Your task to perform on an android device: Open Google Chrome and click the shortcut for Amazon.com Image 0: 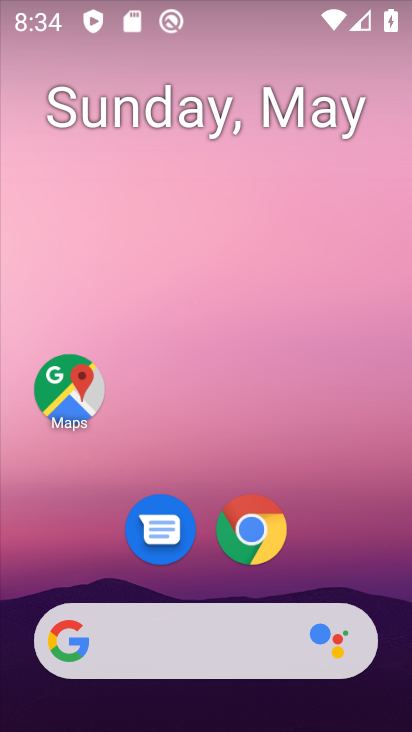
Step 0: click (265, 532)
Your task to perform on an android device: Open Google Chrome and click the shortcut for Amazon.com Image 1: 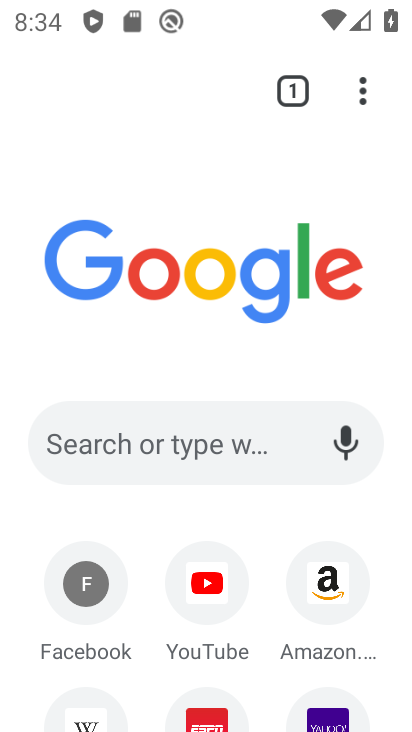
Step 1: click (337, 579)
Your task to perform on an android device: Open Google Chrome and click the shortcut for Amazon.com Image 2: 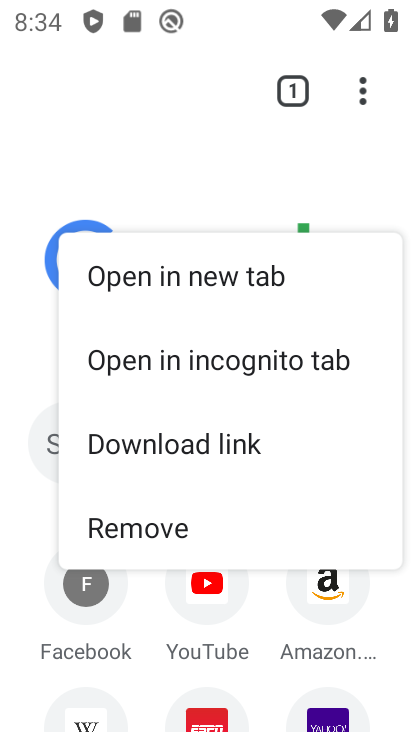
Step 2: click (337, 588)
Your task to perform on an android device: Open Google Chrome and click the shortcut for Amazon.com Image 3: 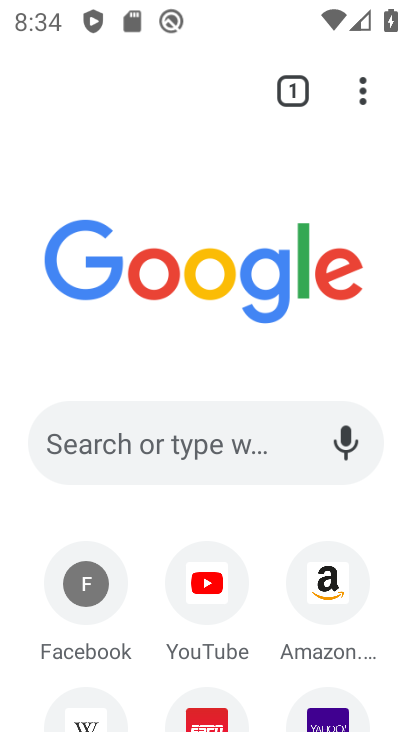
Step 3: click (336, 588)
Your task to perform on an android device: Open Google Chrome and click the shortcut for Amazon.com Image 4: 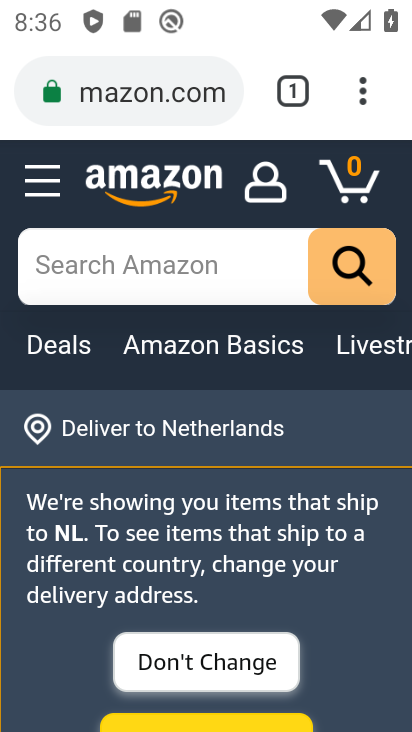
Step 4: task complete